Your task to perform on an android device: snooze an email in the gmail app Image 0: 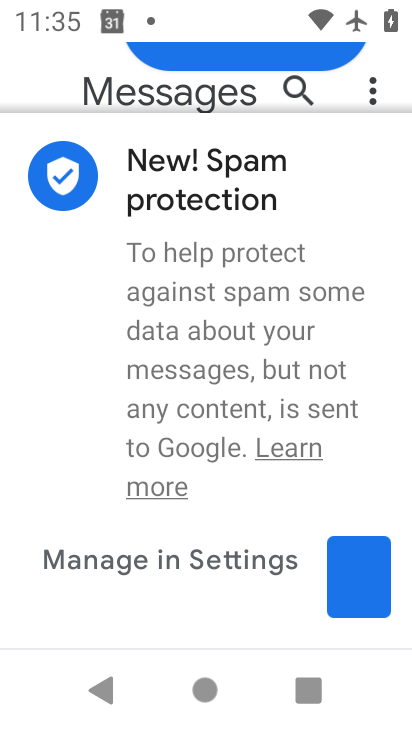
Step 0: press home button
Your task to perform on an android device: snooze an email in the gmail app Image 1: 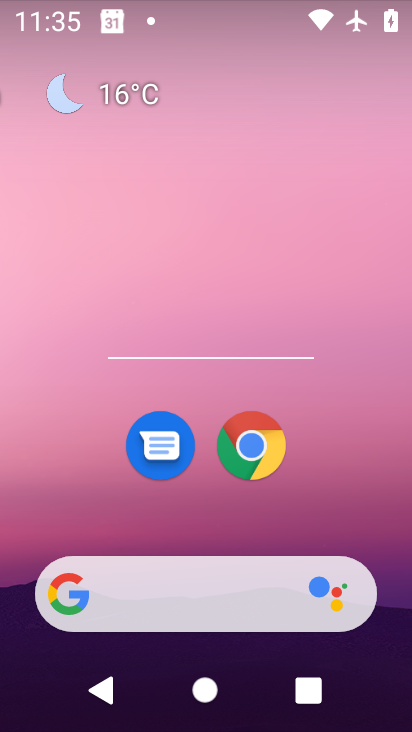
Step 1: drag from (336, 498) to (316, 159)
Your task to perform on an android device: snooze an email in the gmail app Image 2: 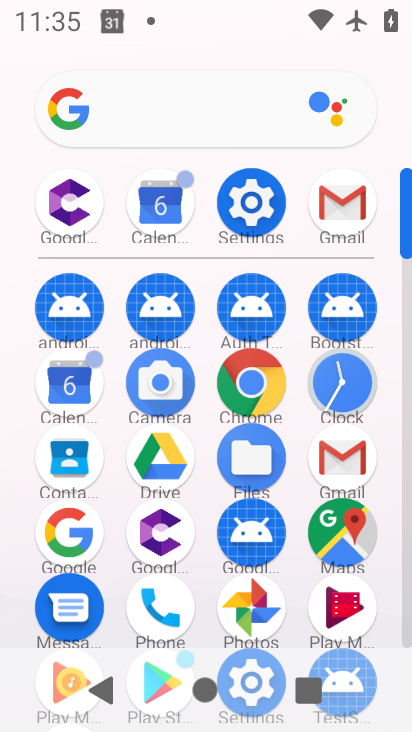
Step 2: click (345, 209)
Your task to perform on an android device: snooze an email in the gmail app Image 3: 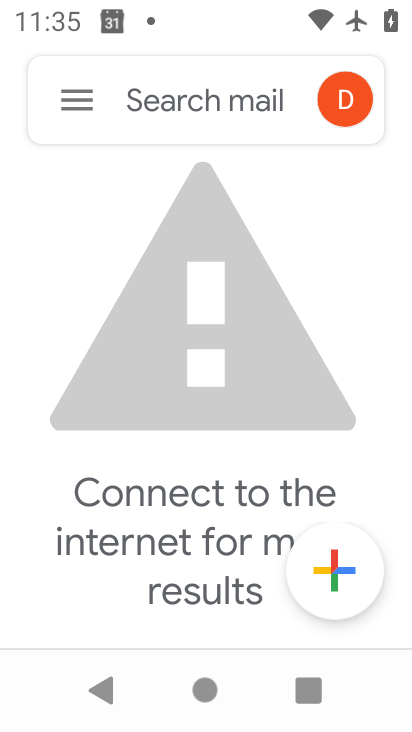
Step 3: click (65, 108)
Your task to perform on an android device: snooze an email in the gmail app Image 4: 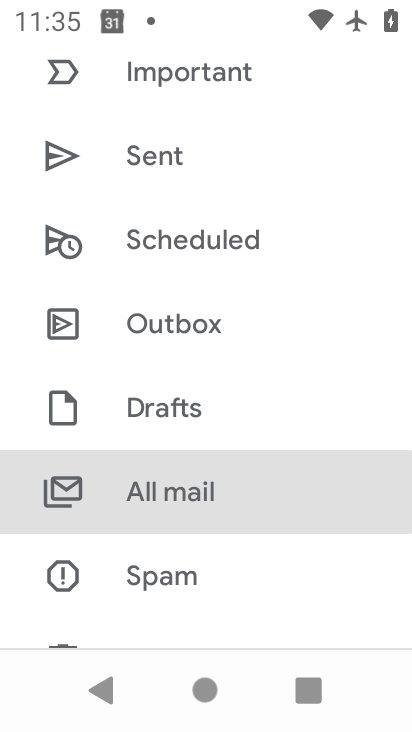
Step 4: drag from (322, 90) to (344, 460)
Your task to perform on an android device: snooze an email in the gmail app Image 5: 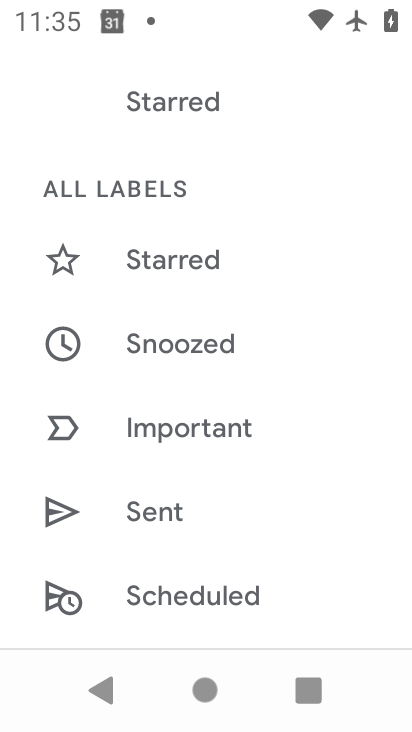
Step 5: click (214, 342)
Your task to perform on an android device: snooze an email in the gmail app Image 6: 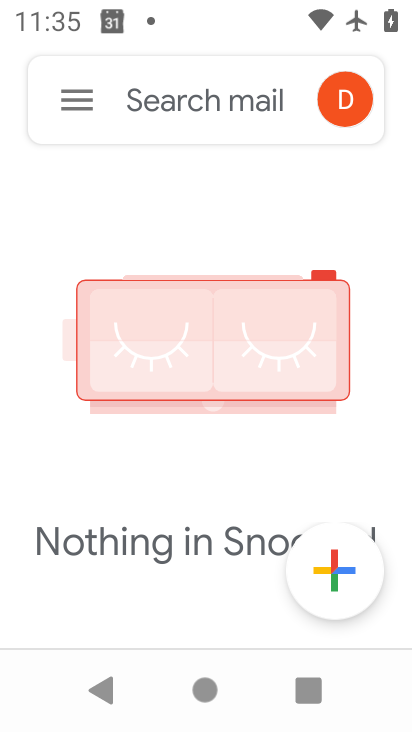
Step 6: task complete